Your task to perform on an android device: turn on priority inbox in the gmail app Image 0: 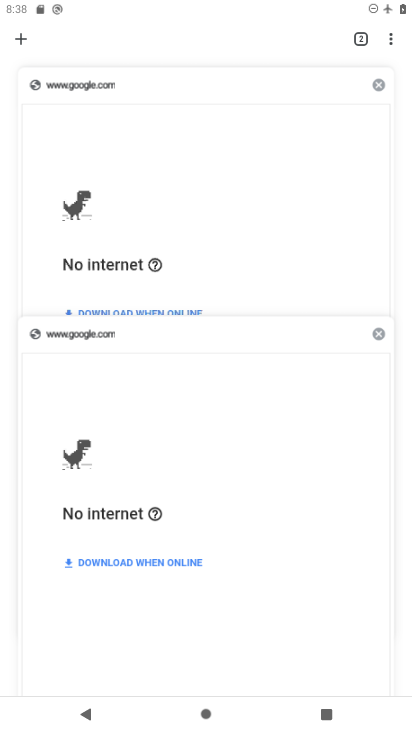
Step 0: click (227, 483)
Your task to perform on an android device: turn on priority inbox in the gmail app Image 1: 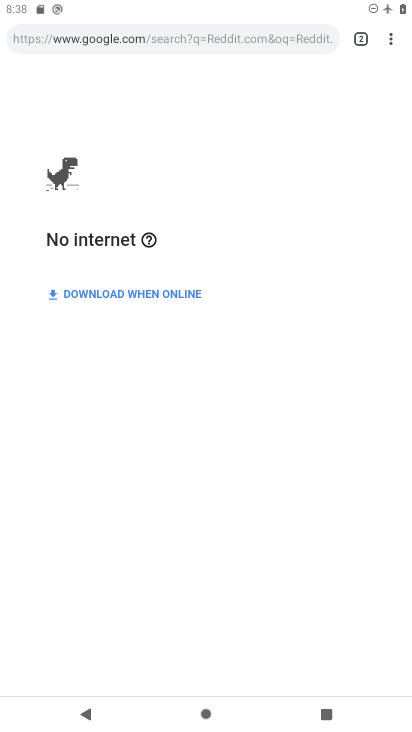
Step 1: press home button
Your task to perform on an android device: turn on priority inbox in the gmail app Image 2: 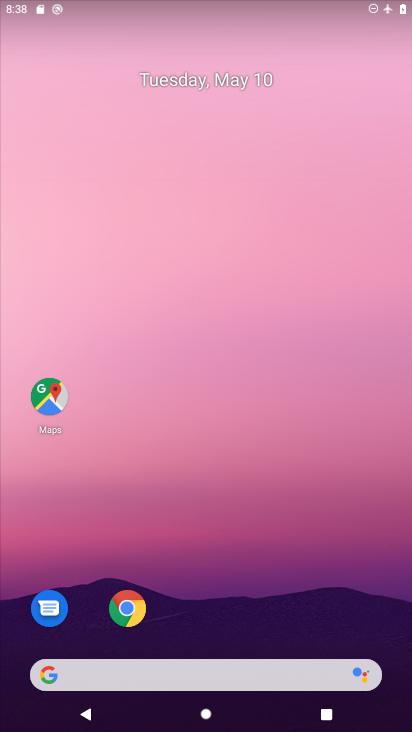
Step 2: drag from (251, 609) to (249, 165)
Your task to perform on an android device: turn on priority inbox in the gmail app Image 3: 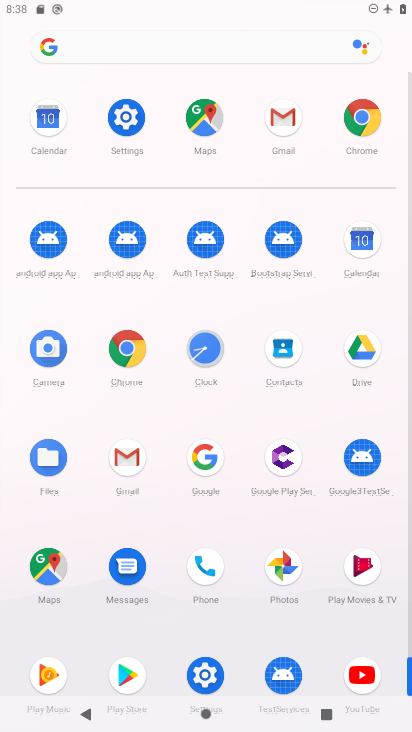
Step 3: click (274, 104)
Your task to perform on an android device: turn on priority inbox in the gmail app Image 4: 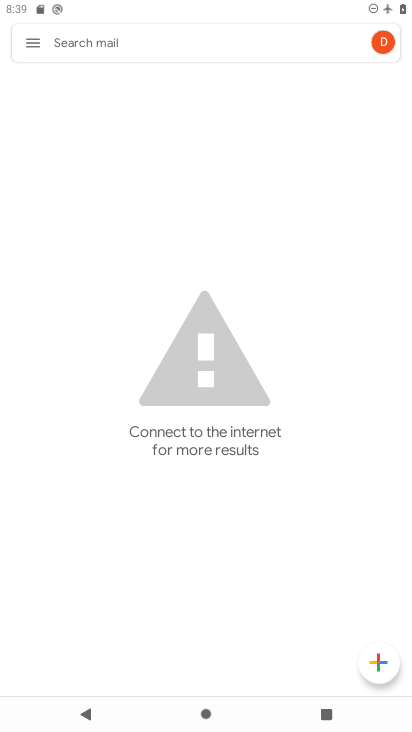
Step 4: click (22, 35)
Your task to perform on an android device: turn on priority inbox in the gmail app Image 5: 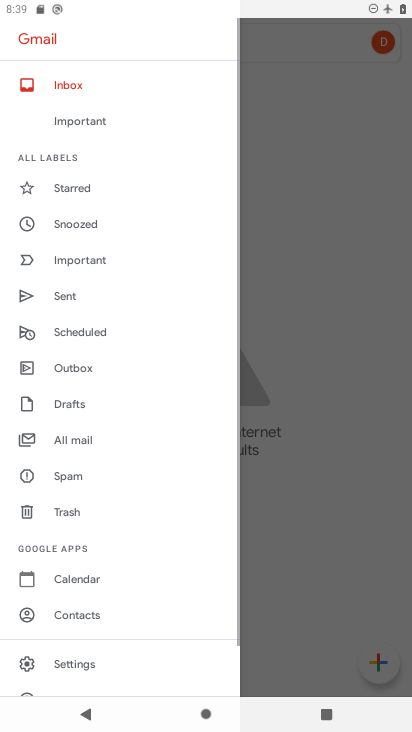
Step 5: click (75, 657)
Your task to perform on an android device: turn on priority inbox in the gmail app Image 6: 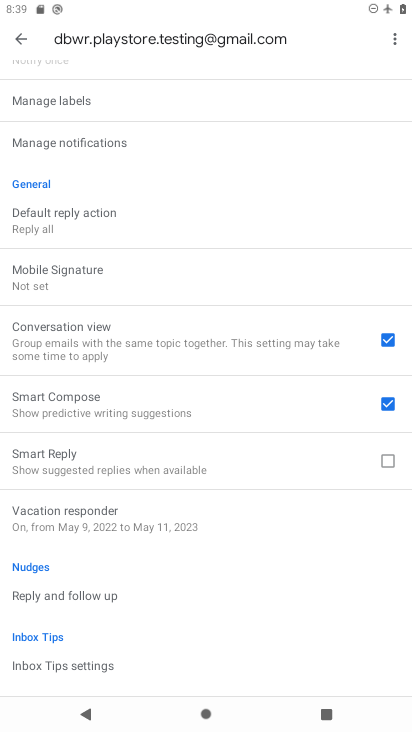
Step 6: drag from (119, 136) to (160, 575)
Your task to perform on an android device: turn on priority inbox in the gmail app Image 7: 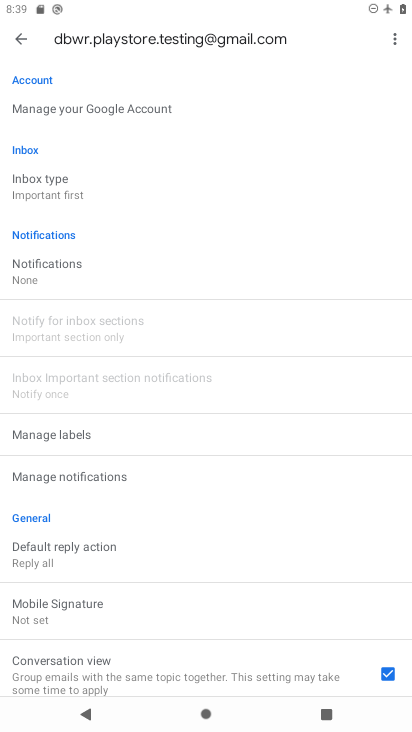
Step 7: click (64, 183)
Your task to perform on an android device: turn on priority inbox in the gmail app Image 8: 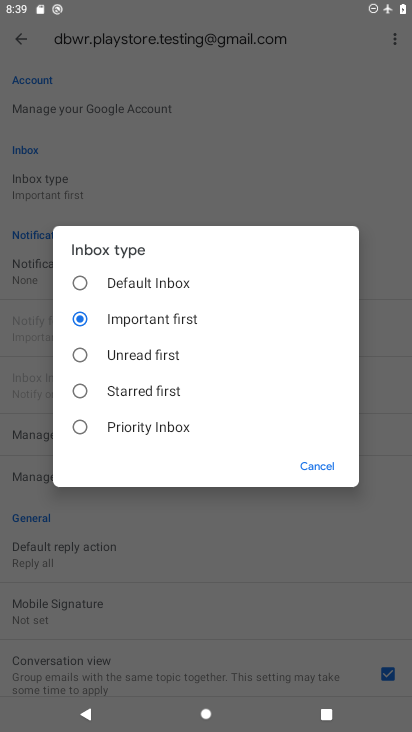
Step 8: click (143, 423)
Your task to perform on an android device: turn on priority inbox in the gmail app Image 9: 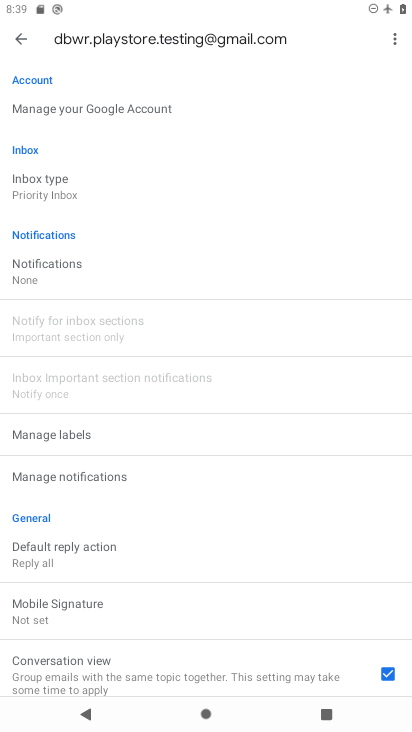
Step 9: task complete